Your task to perform on an android device: visit the assistant section in the google photos Image 0: 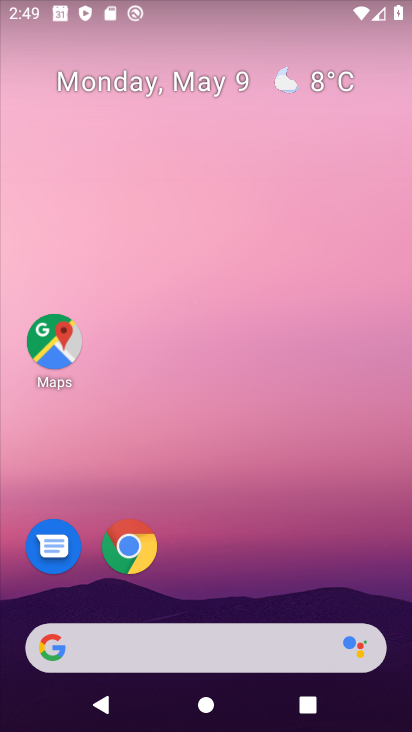
Step 0: drag from (295, 591) to (305, 34)
Your task to perform on an android device: visit the assistant section in the google photos Image 1: 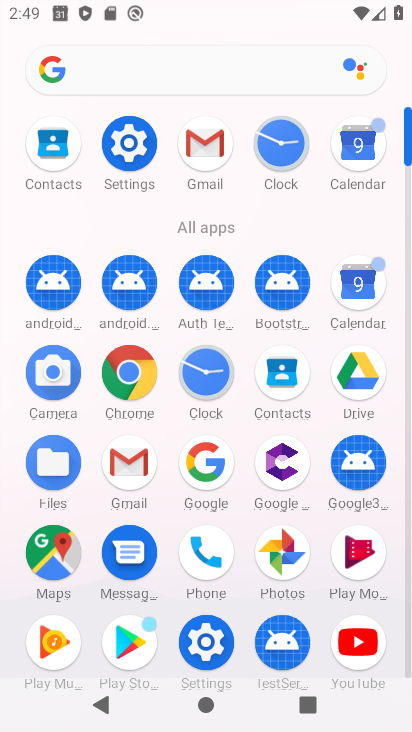
Step 1: click (284, 550)
Your task to perform on an android device: visit the assistant section in the google photos Image 2: 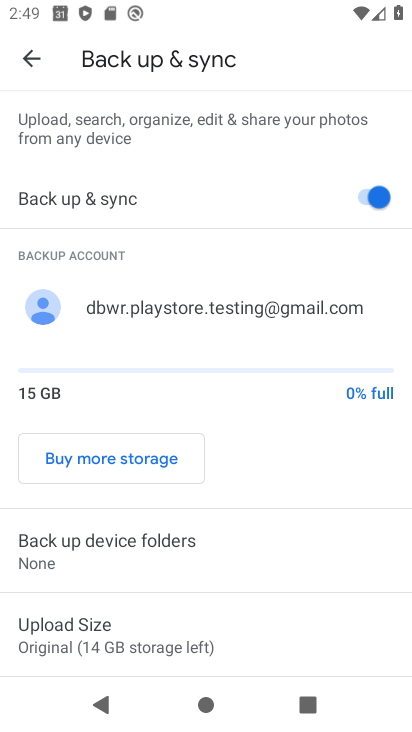
Step 2: click (29, 53)
Your task to perform on an android device: visit the assistant section in the google photos Image 3: 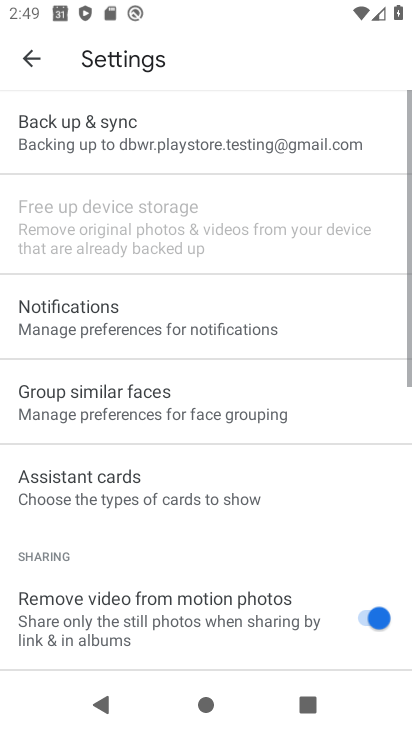
Step 3: click (29, 54)
Your task to perform on an android device: visit the assistant section in the google photos Image 4: 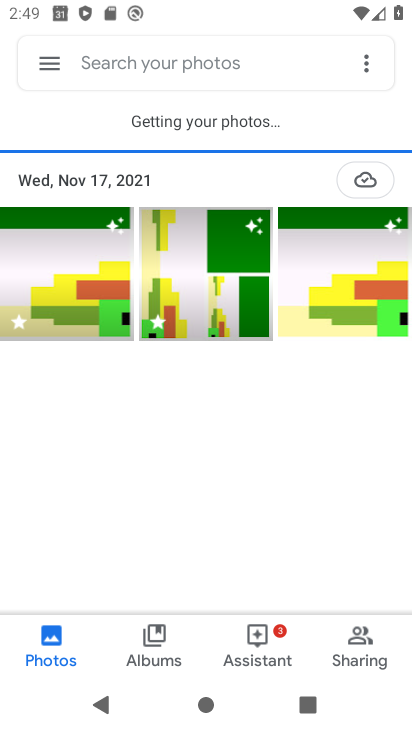
Step 4: click (250, 645)
Your task to perform on an android device: visit the assistant section in the google photos Image 5: 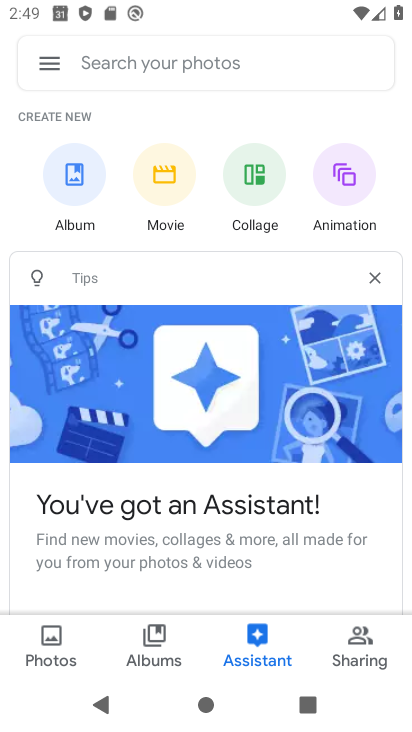
Step 5: task complete